Your task to perform on an android device: manage bookmarks in the chrome app Image 0: 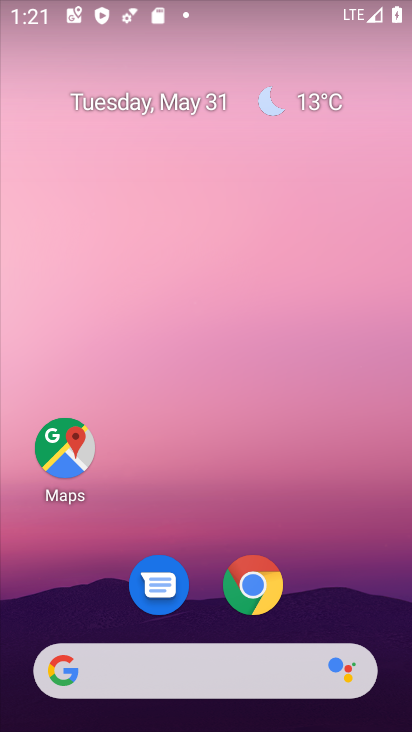
Step 0: click (260, 599)
Your task to perform on an android device: manage bookmarks in the chrome app Image 1: 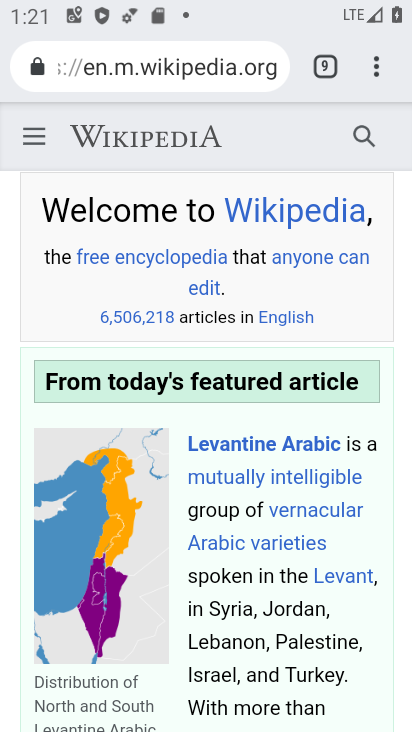
Step 1: click (376, 68)
Your task to perform on an android device: manage bookmarks in the chrome app Image 2: 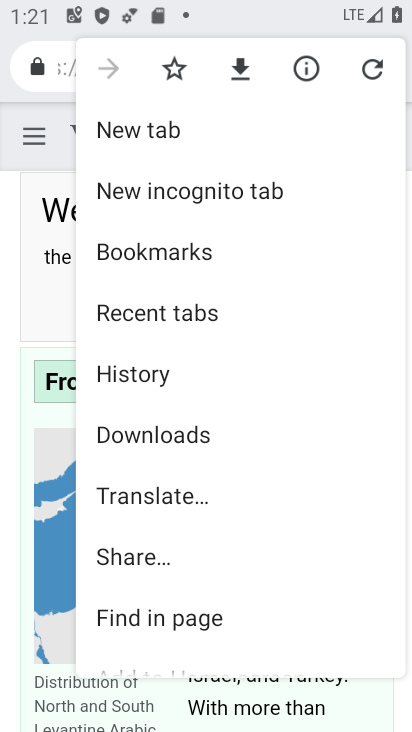
Step 2: click (209, 251)
Your task to perform on an android device: manage bookmarks in the chrome app Image 3: 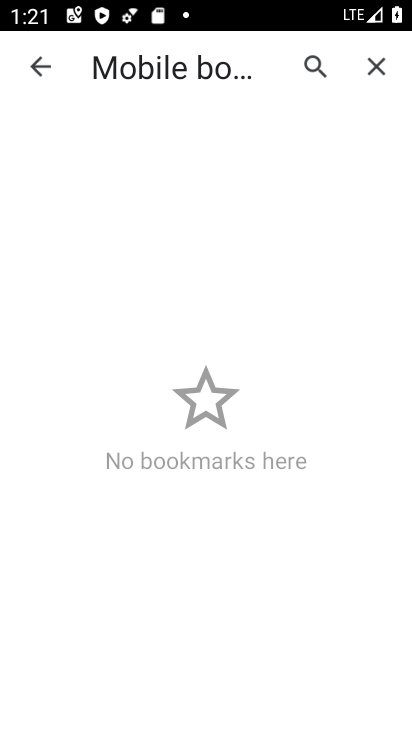
Step 3: task complete